Your task to perform on an android device: open device folders in google photos Image 0: 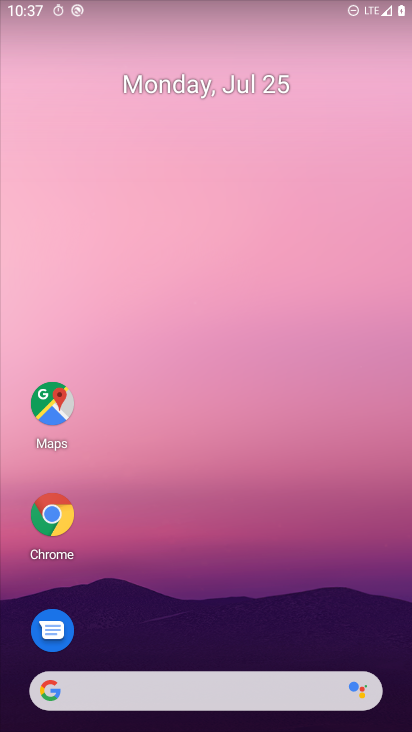
Step 0: drag from (94, 583) to (161, 524)
Your task to perform on an android device: open device folders in google photos Image 1: 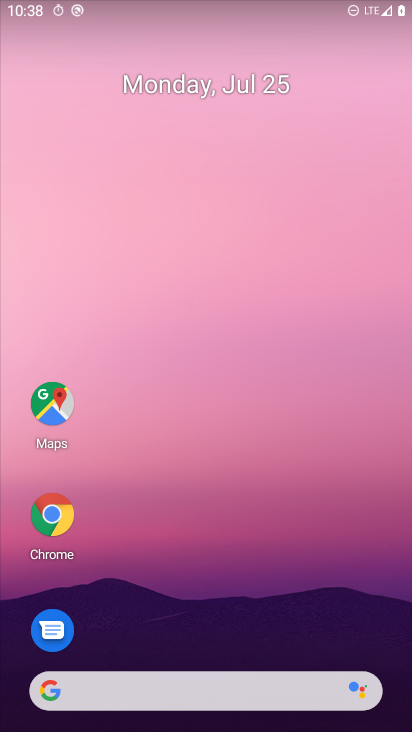
Step 1: drag from (31, 672) to (300, 19)
Your task to perform on an android device: open device folders in google photos Image 2: 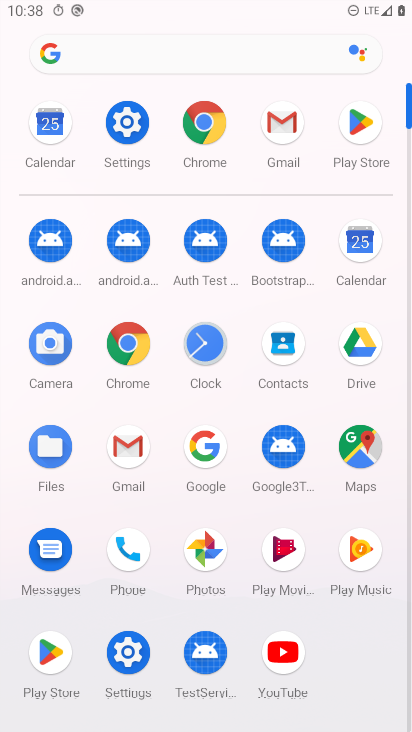
Step 2: click (195, 558)
Your task to perform on an android device: open device folders in google photos Image 3: 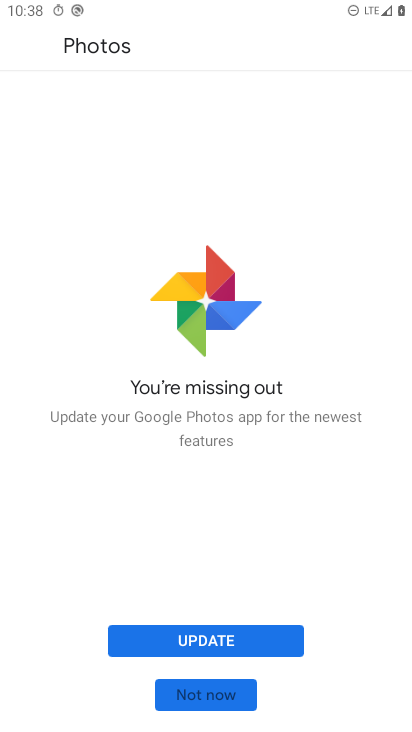
Step 3: click (183, 634)
Your task to perform on an android device: open device folders in google photos Image 4: 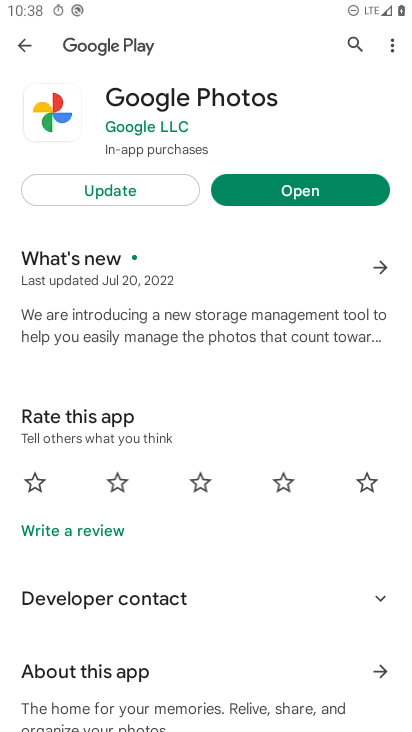
Step 4: click (283, 198)
Your task to perform on an android device: open device folders in google photos Image 5: 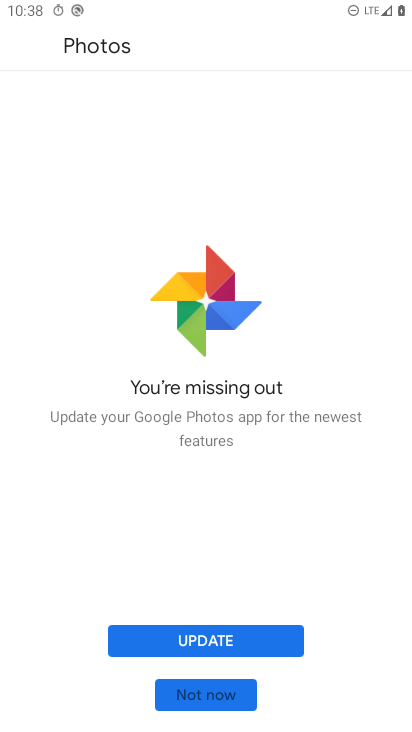
Step 5: task complete